Your task to perform on an android device: Open Reddit.com Image 0: 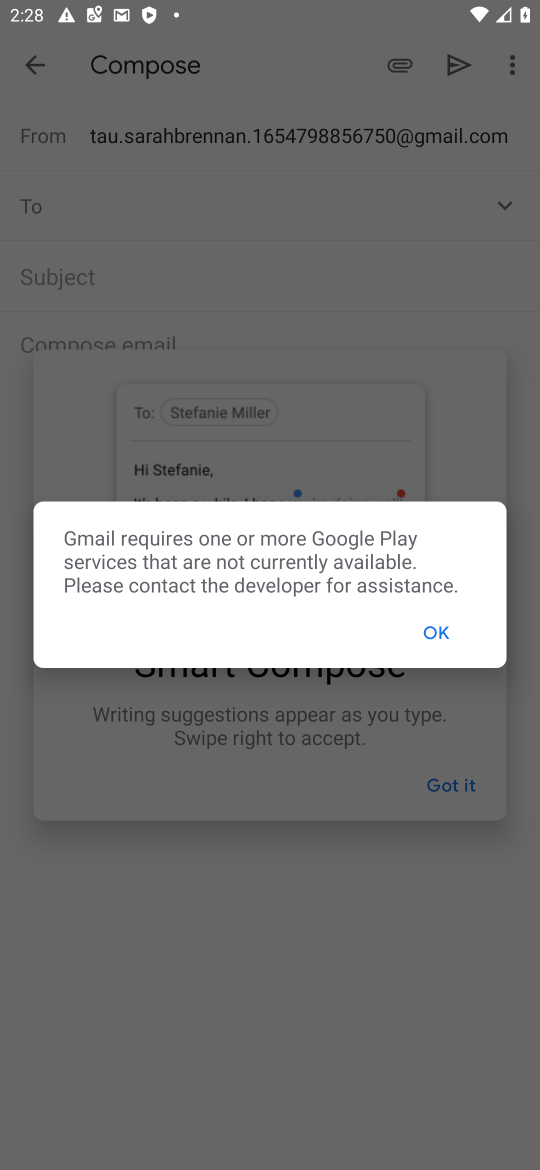
Step 0: click (439, 617)
Your task to perform on an android device: Open Reddit.com Image 1: 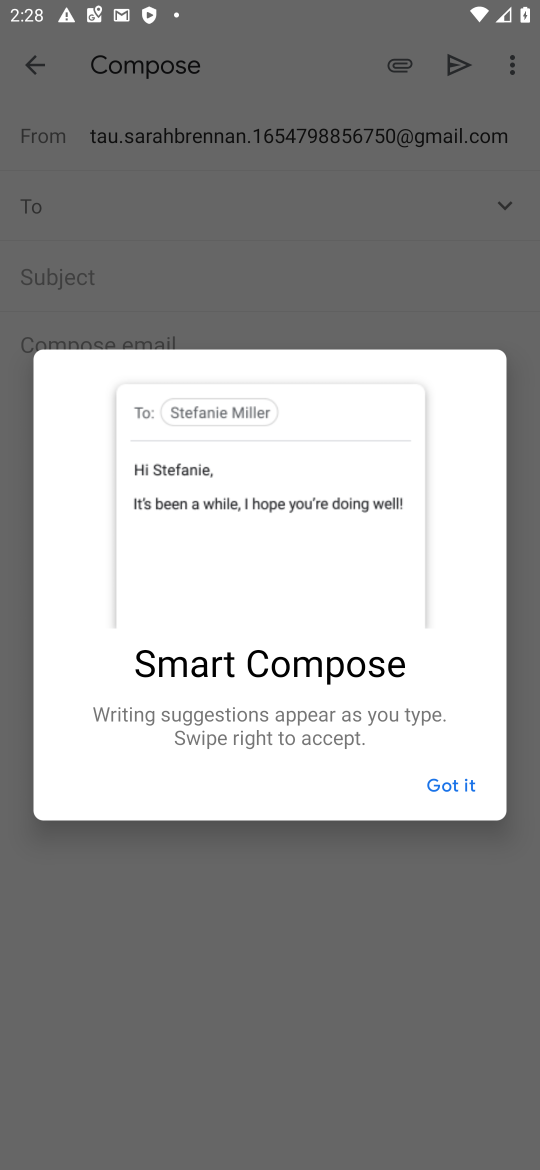
Step 1: press home button
Your task to perform on an android device: Open Reddit.com Image 2: 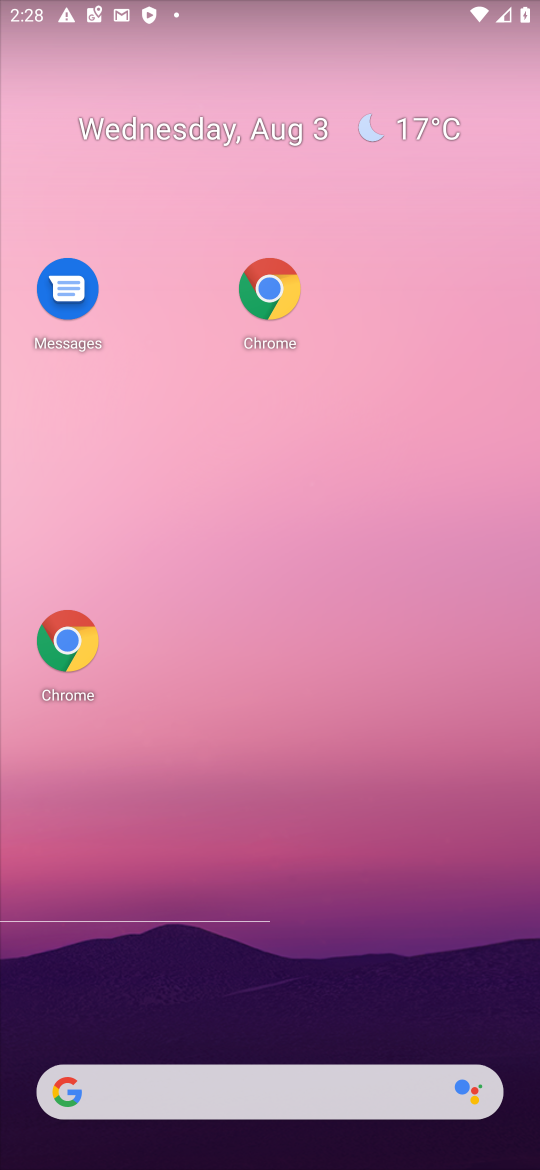
Step 2: click (65, 637)
Your task to perform on an android device: Open Reddit.com Image 3: 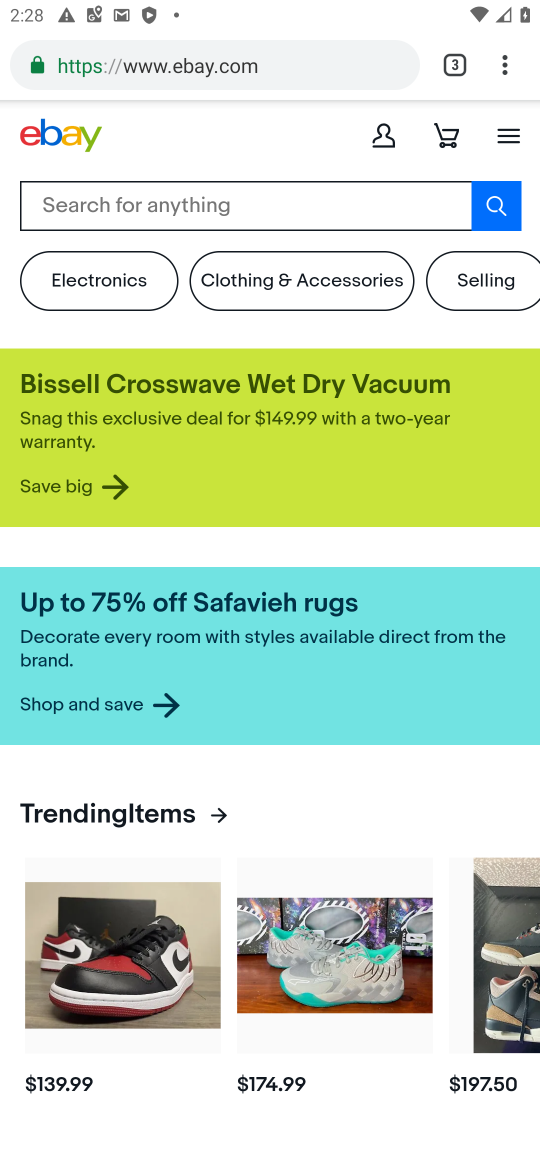
Step 3: click (185, 86)
Your task to perform on an android device: Open Reddit.com Image 4: 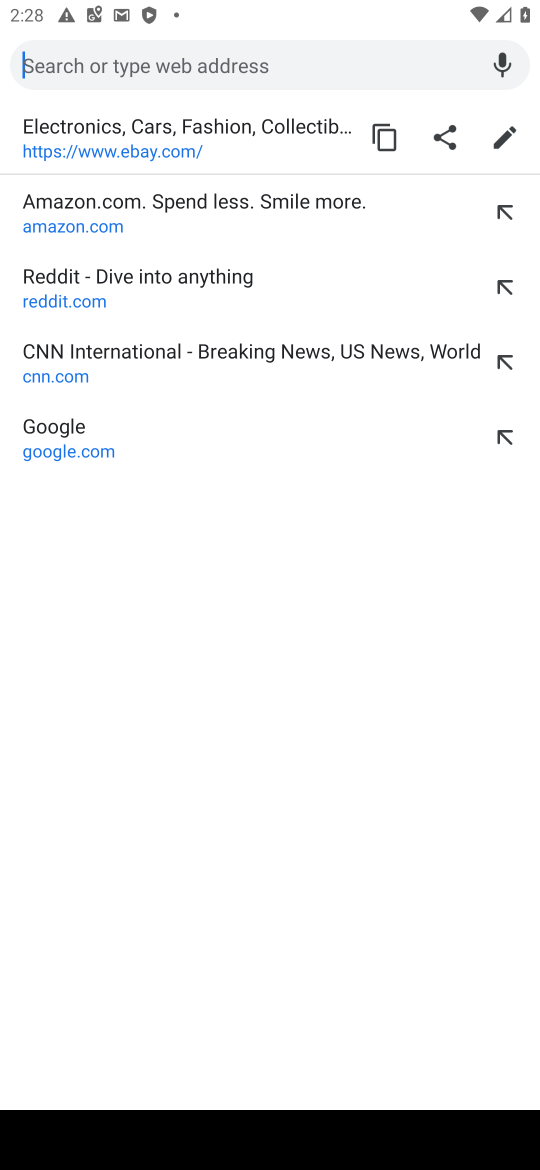
Step 4: type "reddit.com"
Your task to perform on an android device: Open Reddit.com Image 5: 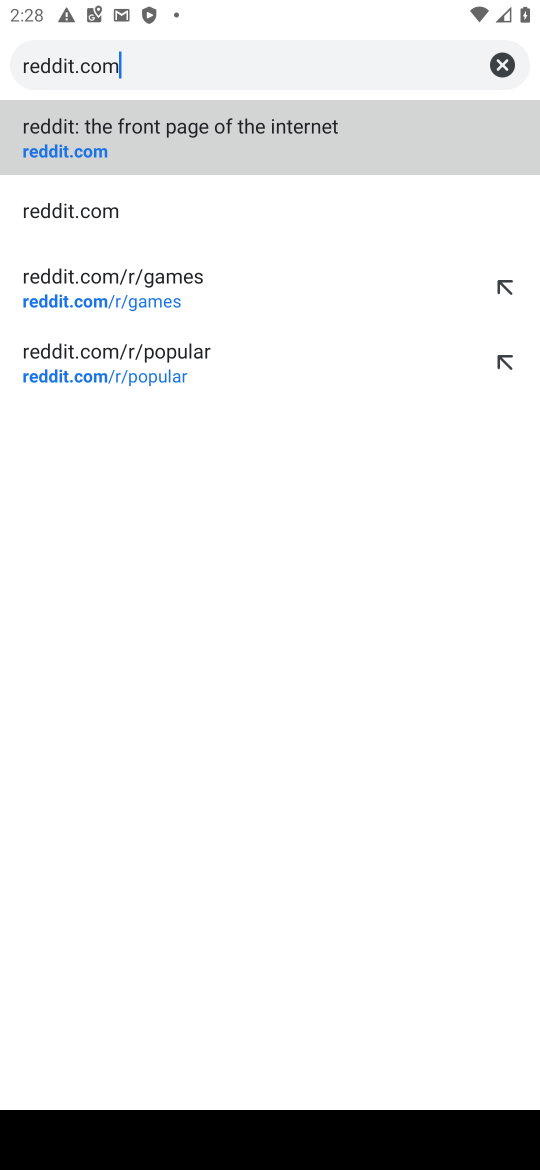
Step 5: click (60, 169)
Your task to perform on an android device: Open Reddit.com Image 6: 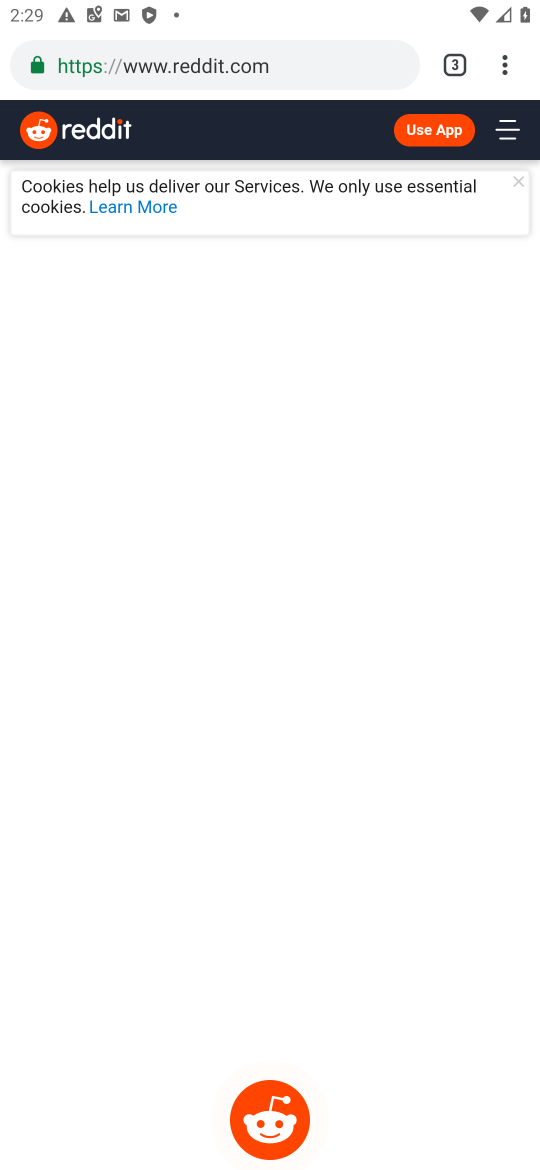
Step 6: task complete